Your task to perform on an android device: allow cookies in the chrome app Image 0: 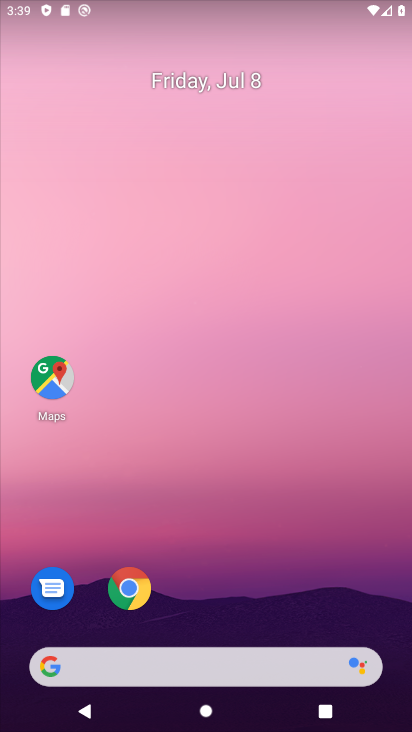
Step 0: drag from (203, 410) to (202, 2)
Your task to perform on an android device: allow cookies in the chrome app Image 1: 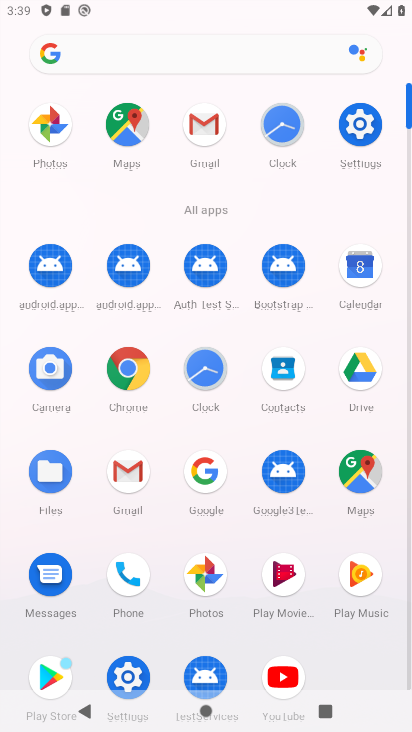
Step 1: click (130, 377)
Your task to perform on an android device: allow cookies in the chrome app Image 2: 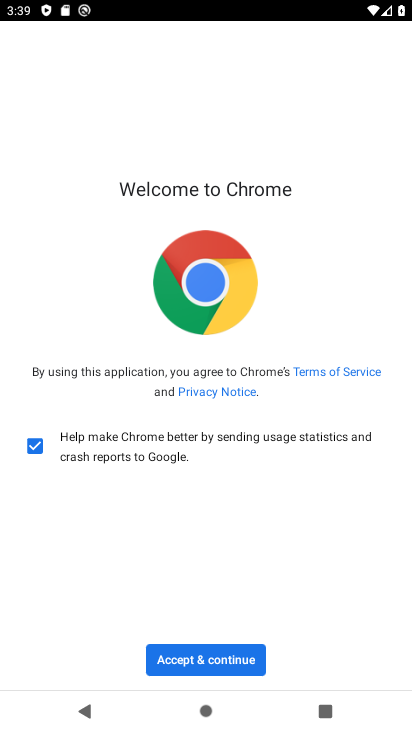
Step 2: click (245, 660)
Your task to perform on an android device: allow cookies in the chrome app Image 3: 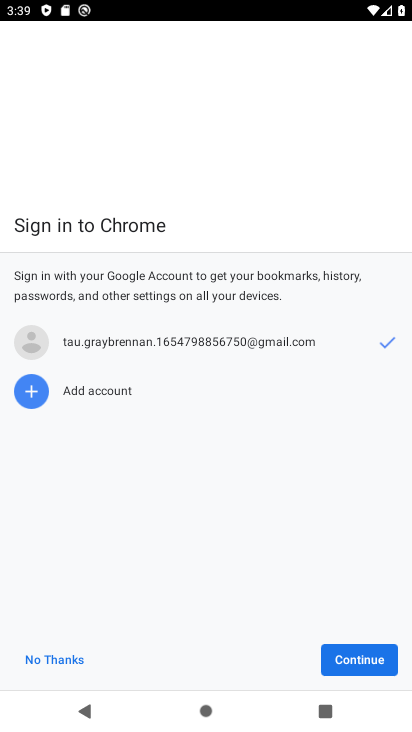
Step 3: click (347, 660)
Your task to perform on an android device: allow cookies in the chrome app Image 4: 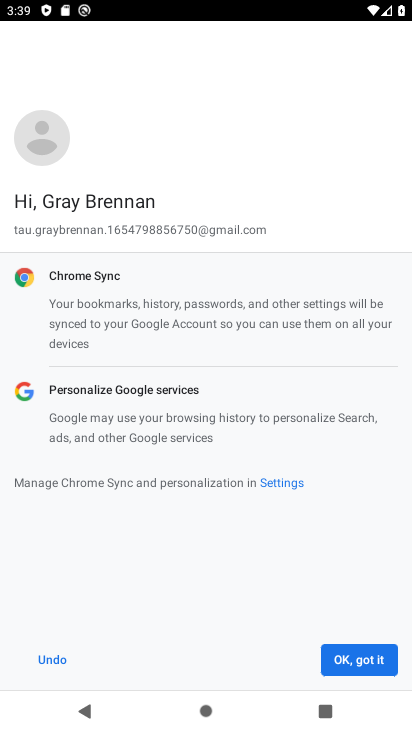
Step 4: click (329, 648)
Your task to perform on an android device: allow cookies in the chrome app Image 5: 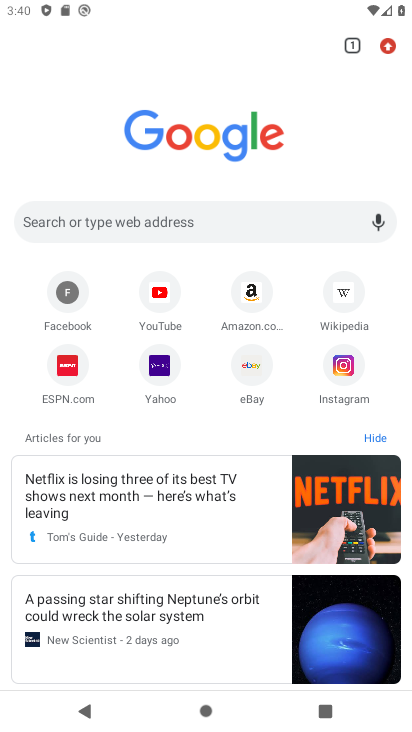
Step 5: click (388, 41)
Your task to perform on an android device: allow cookies in the chrome app Image 6: 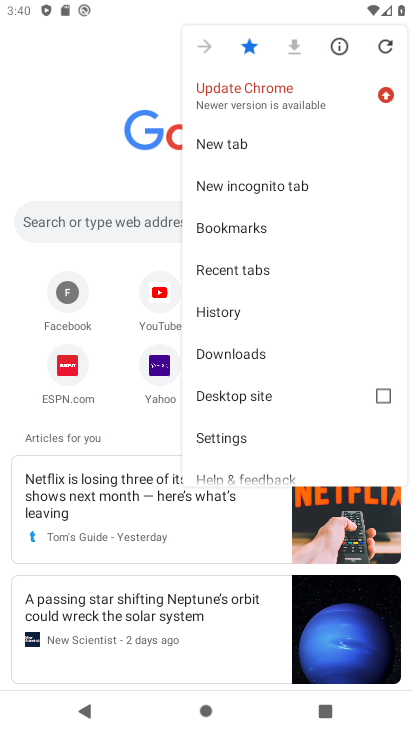
Step 6: click (218, 434)
Your task to perform on an android device: allow cookies in the chrome app Image 7: 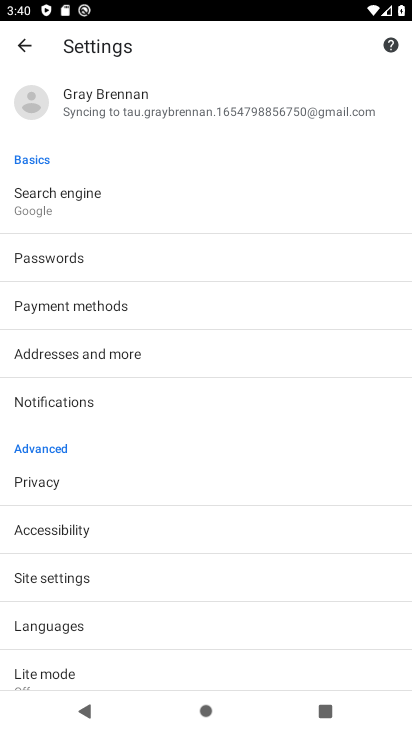
Step 7: click (69, 578)
Your task to perform on an android device: allow cookies in the chrome app Image 8: 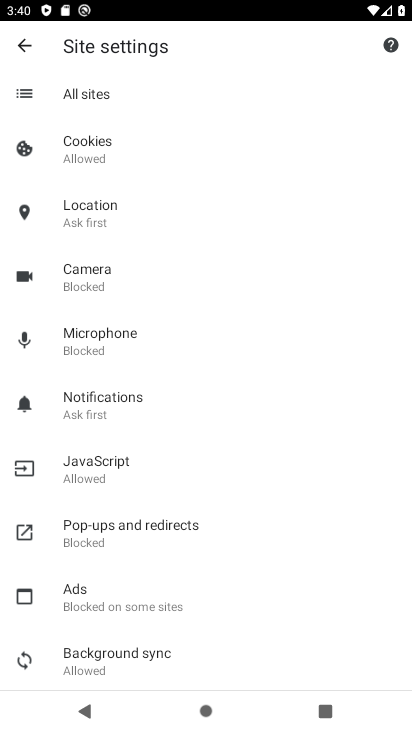
Step 8: click (98, 151)
Your task to perform on an android device: allow cookies in the chrome app Image 9: 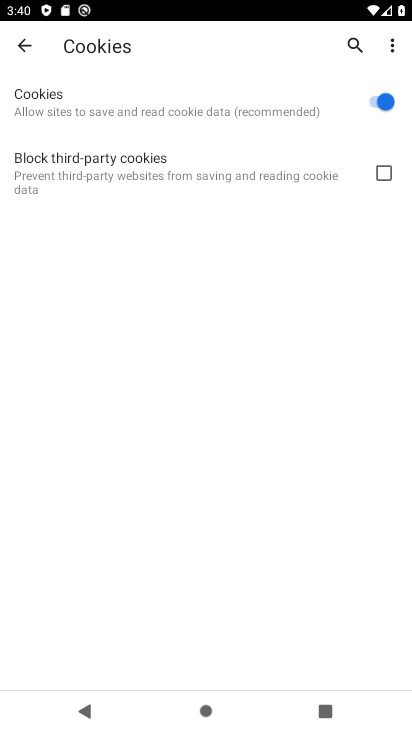
Step 9: task complete